Your task to perform on an android device: Open Chrome and go to settings Image 0: 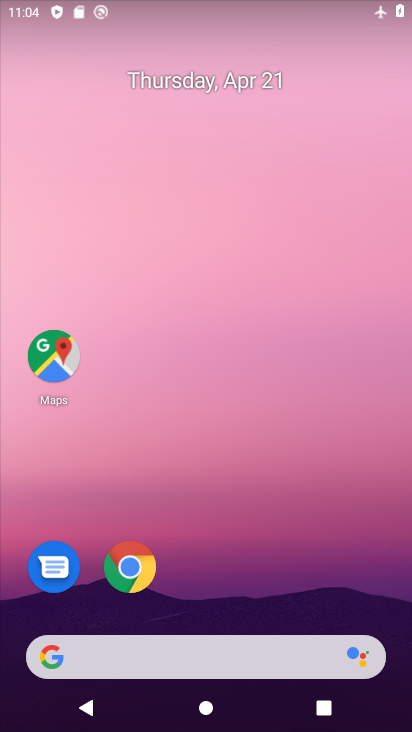
Step 0: click (126, 558)
Your task to perform on an android device: Open Chrome and go to settings Image 1: 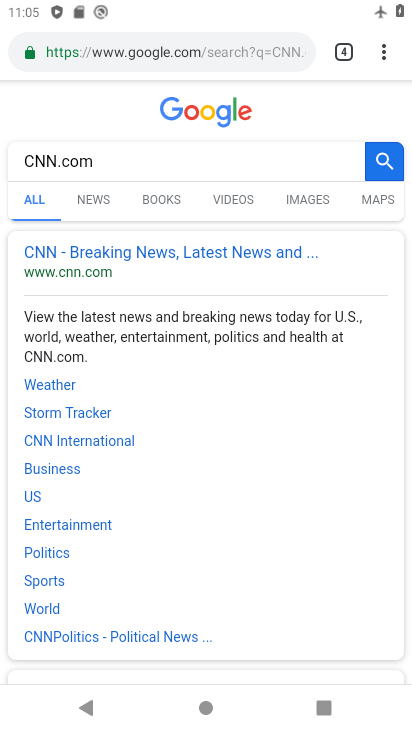
Step 1: click (380, 58)
Your task to perform on an android device: Open Chrome and go to settings Image 2: 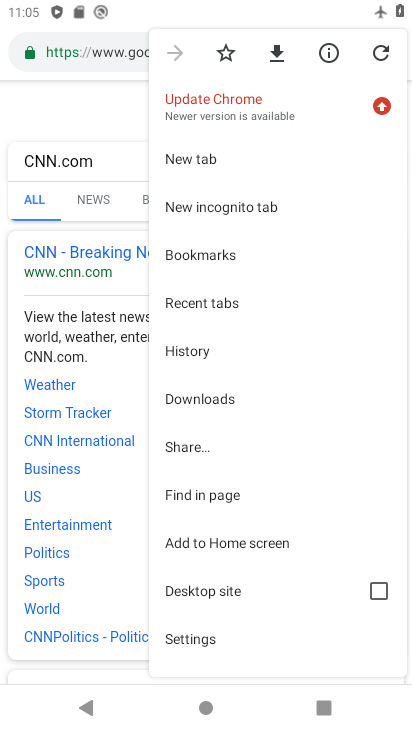
Step 2: click (197, 641)
Your task to perform on an android device: Open Chrome and go to settings Image 3: 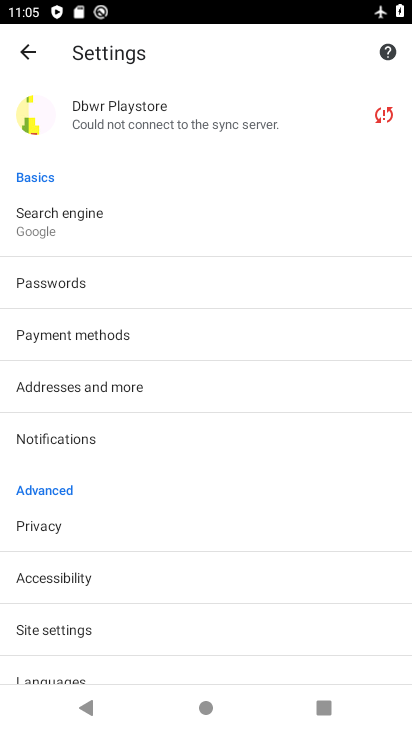
Step 3: task complete